Your task to perform on an android device: Search for dell xps on amazon, select the first entry, add it to the cart, then select checkout. Image 0: 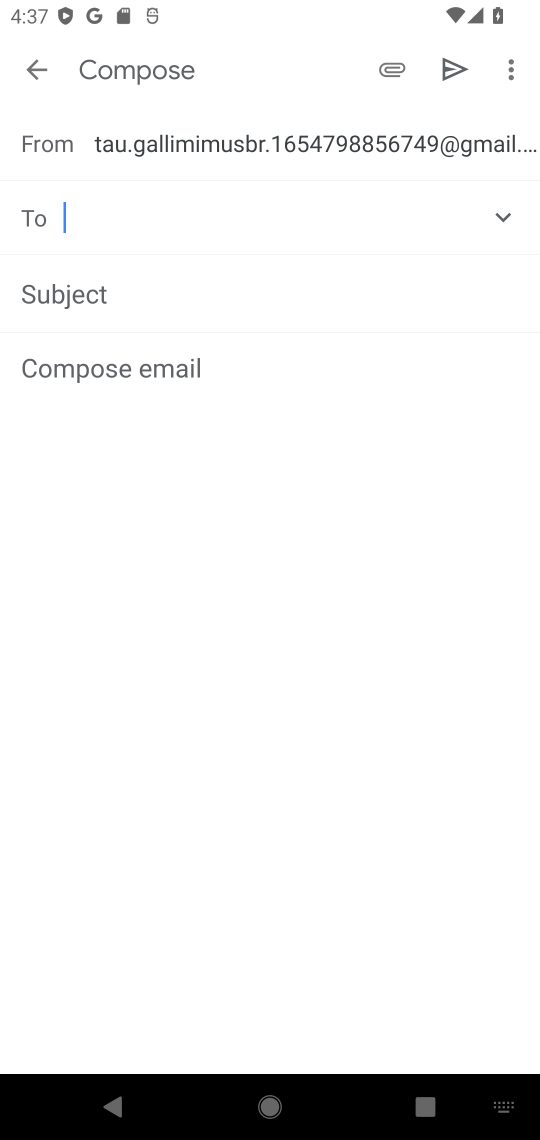
Step 0: press home button
Your task to perform on an android device: Search for dell xps on amazon, select the first entry, add it to the cart, then select checkout. Image 1: 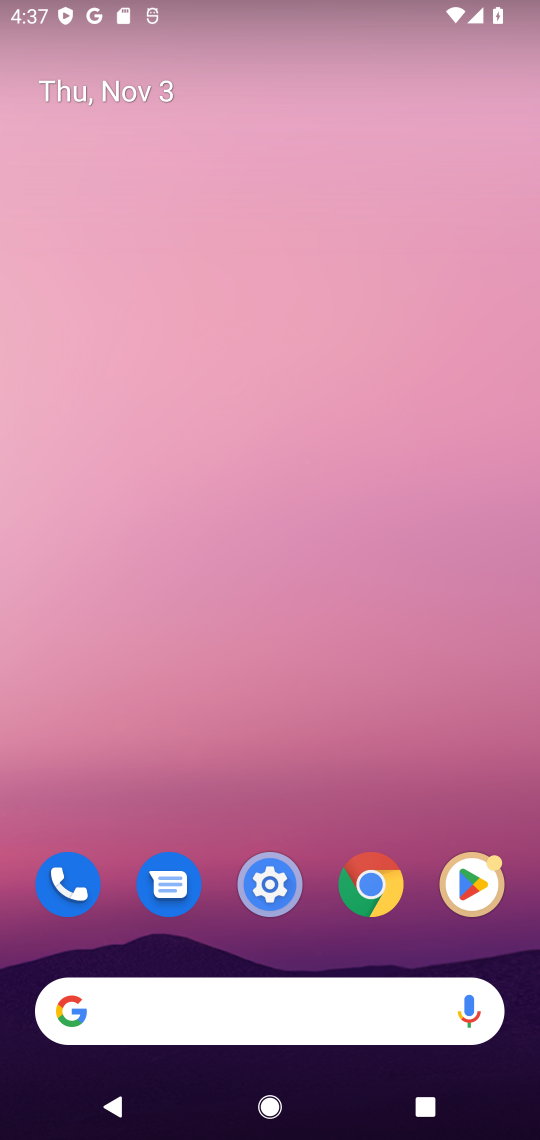
Step 1: click (101, 1008)
Your task to perform on an android device: Search for dell xps on amazon, select the first entry, add it to the cart, then select checkout. Image 2: 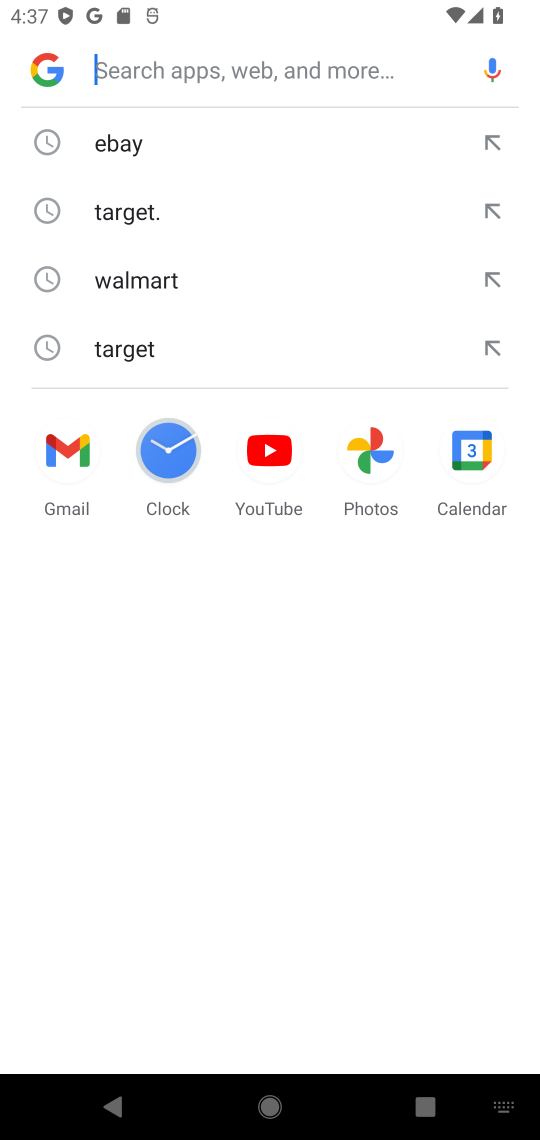
Step 2: type " amazon"
Your task to perform on an android device: Search for dell xps on amazon, select the first entry, add it to the cart, then select checkout. Image 3: 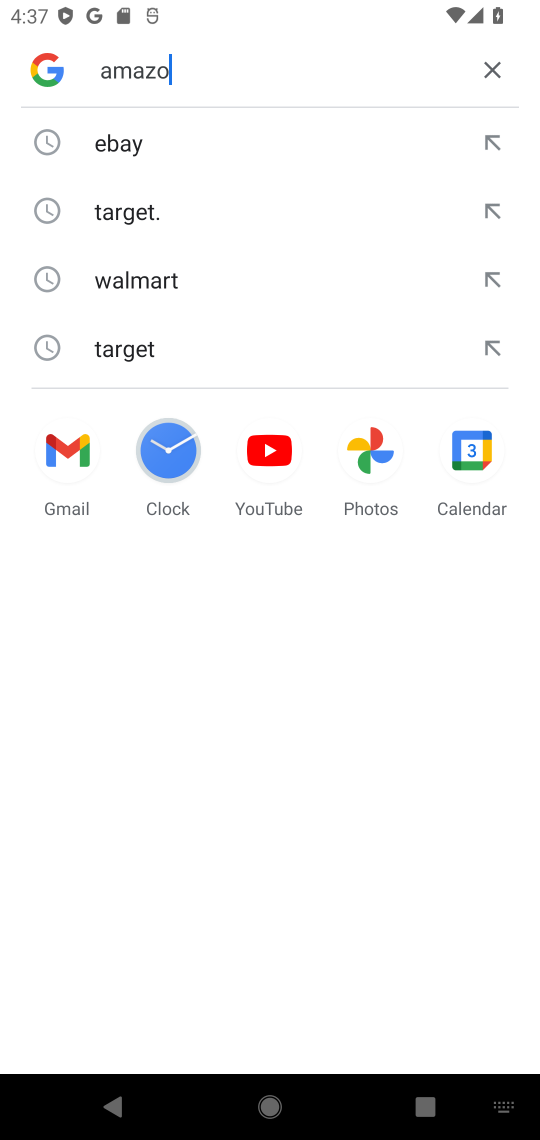
Step 3: press enter
Your task to perform on an android device: Search for dell xps on amazon, select the first entry, add it to the cart, then select checkout. Image 4: 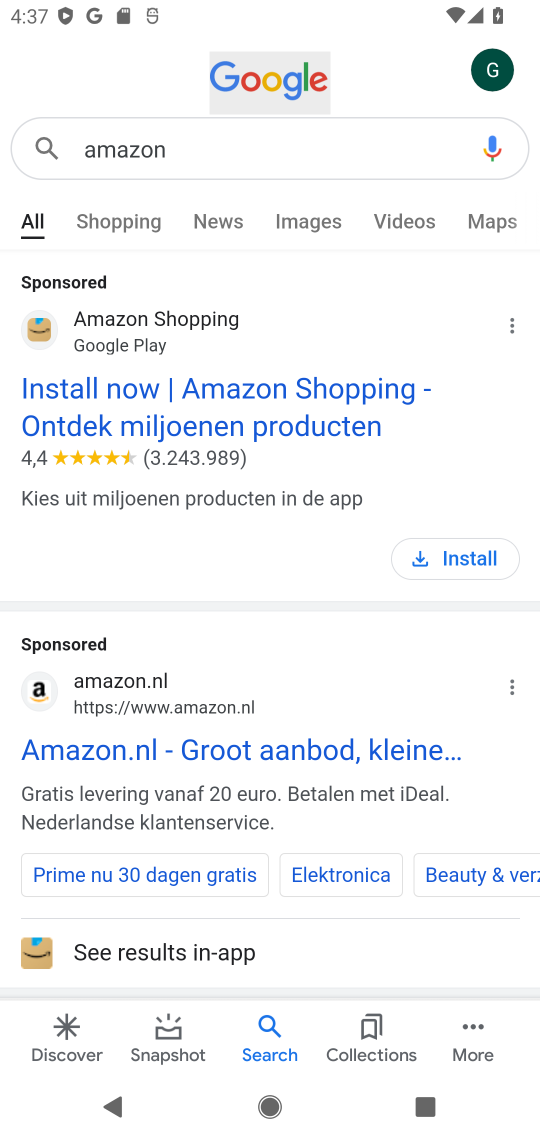
Step 4: drag from (322, 911) to (394, 364)
Your task to perform on an android device: Search for dell xps on amazon, select the first entry, add it to the cart, then select checkout. Image 5: 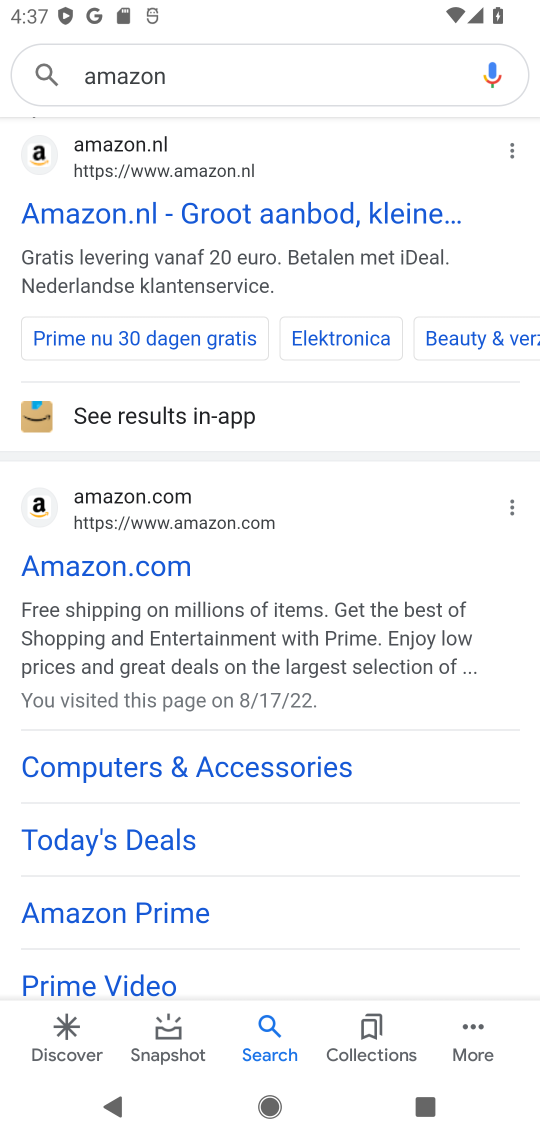
Step 5: click (105, 567)
Your task to perform on an android device: Search for dell xps on amazon, select the first entry, add it to the cart, then select checkout. Image 6: 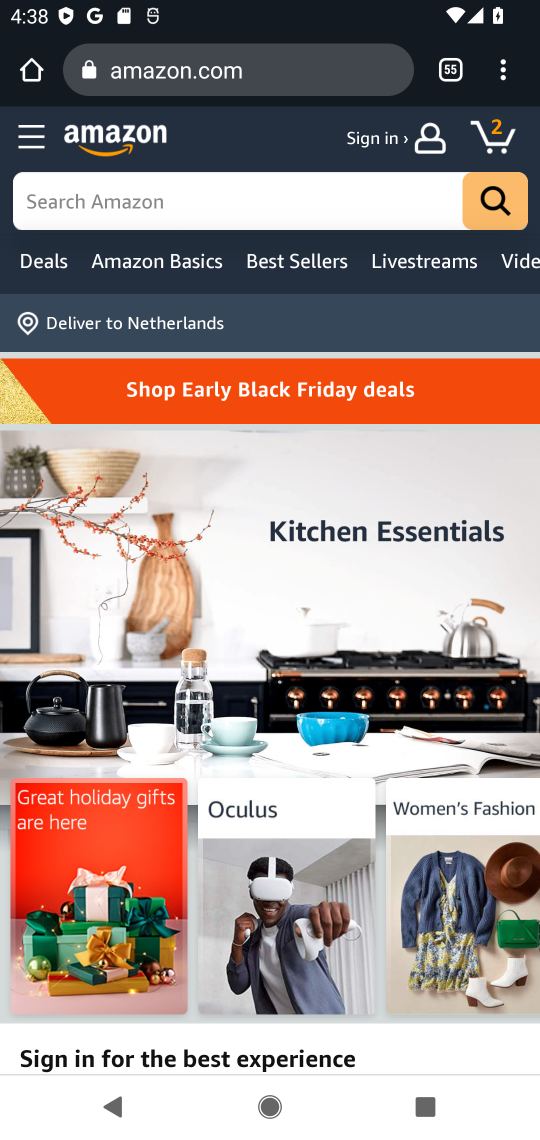
Step 6: click (194, 206)
Your task to perform on an android device: Search for dell xps on amazon, select the first entry, add it to the cart, then select checkout. Image 7: 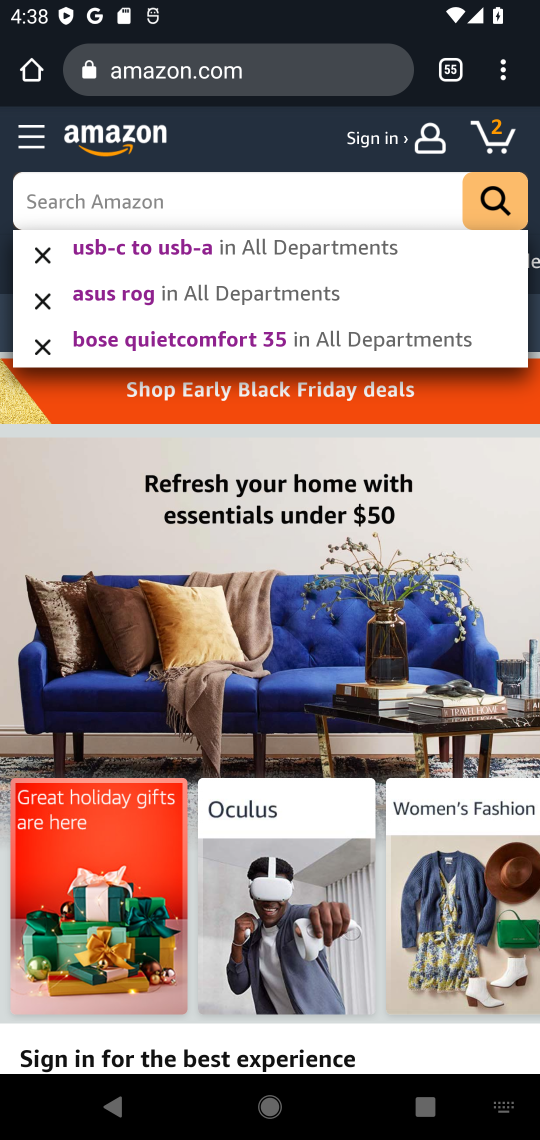
Step 7: press enter
Your task to perform on an android device: Search for dell xps on amazon, select the first entry, add it to the cart, then select checkout. Image 8: 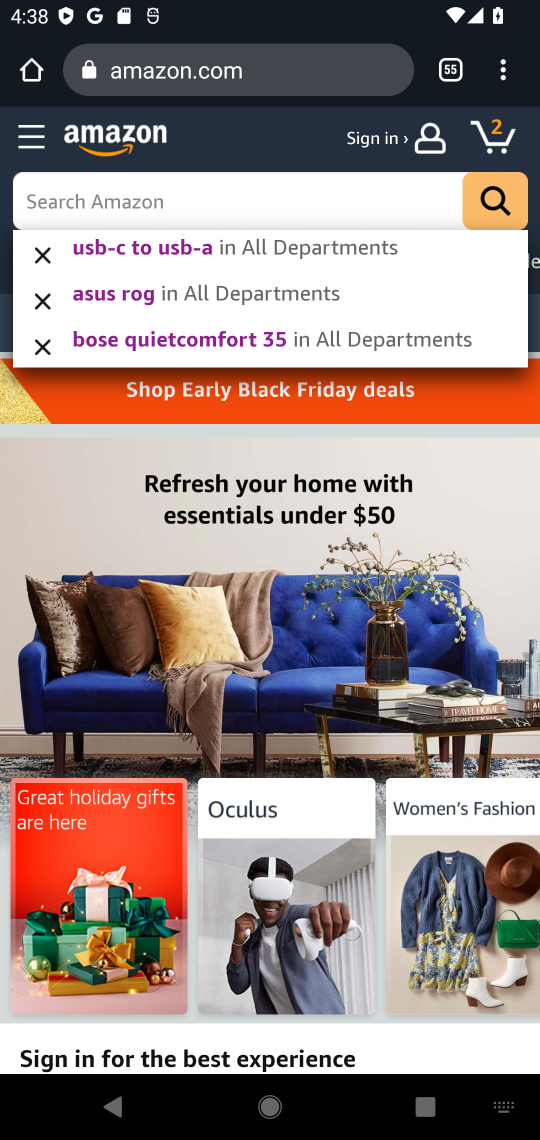
Step 8: type "dell xps"
Your task to perform on an android device: Search for dell xps on amazon, select the first entry, add it to the cart, then select checkout. Image 9: 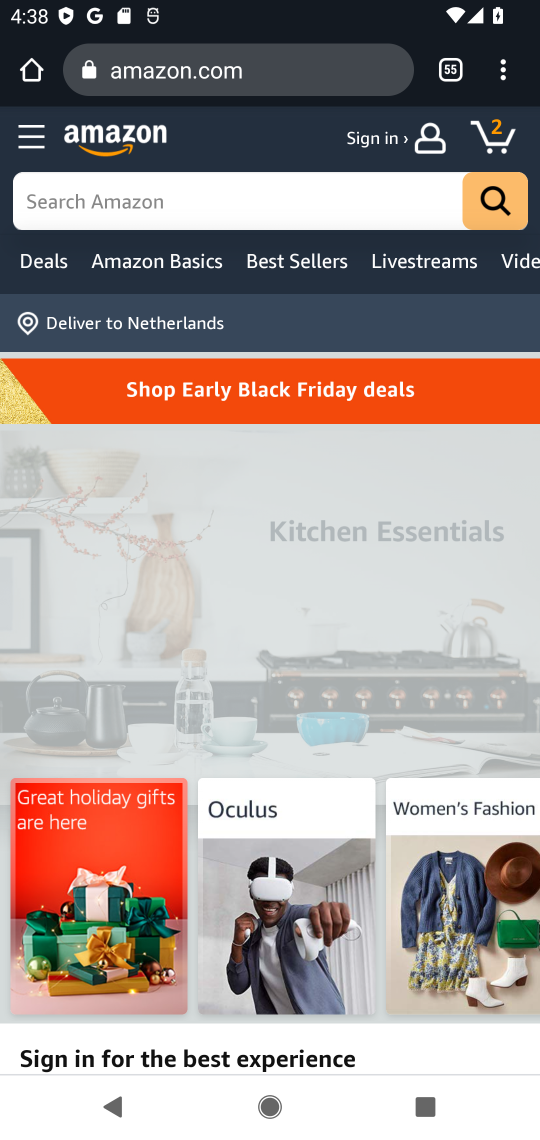
Step 9: click (110, 190)
Your task to perform on an android device: Search for dell xps on amazon, select the first entry, add it to the cart, then select checkout. Image 10: 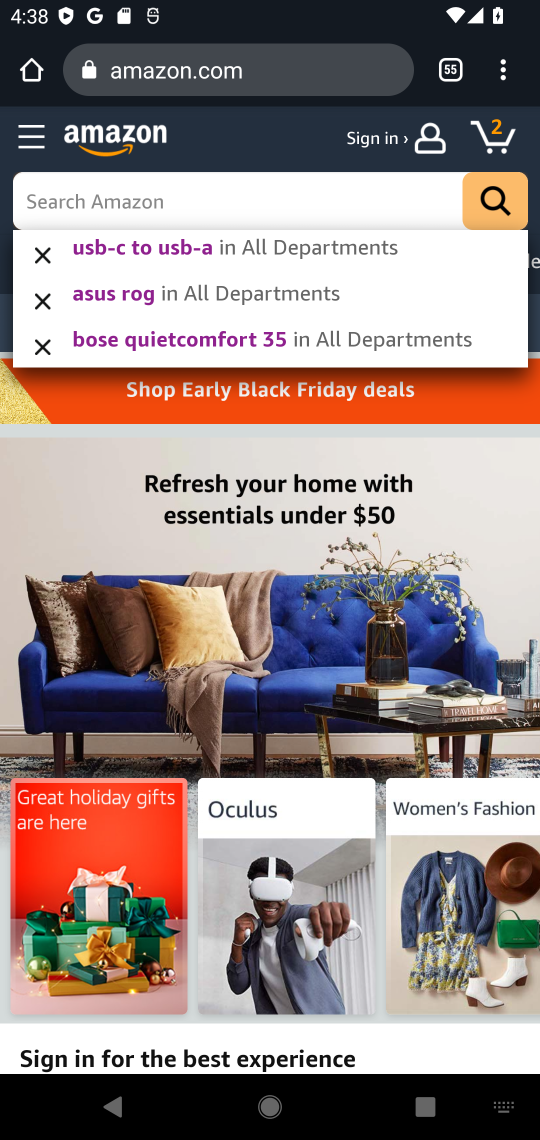
Step 10: type "dell xps"
Your task to perform on an android device: Search for dell xps on amazon, select the first entry, add it to the cart, then select checkout. Image 11: 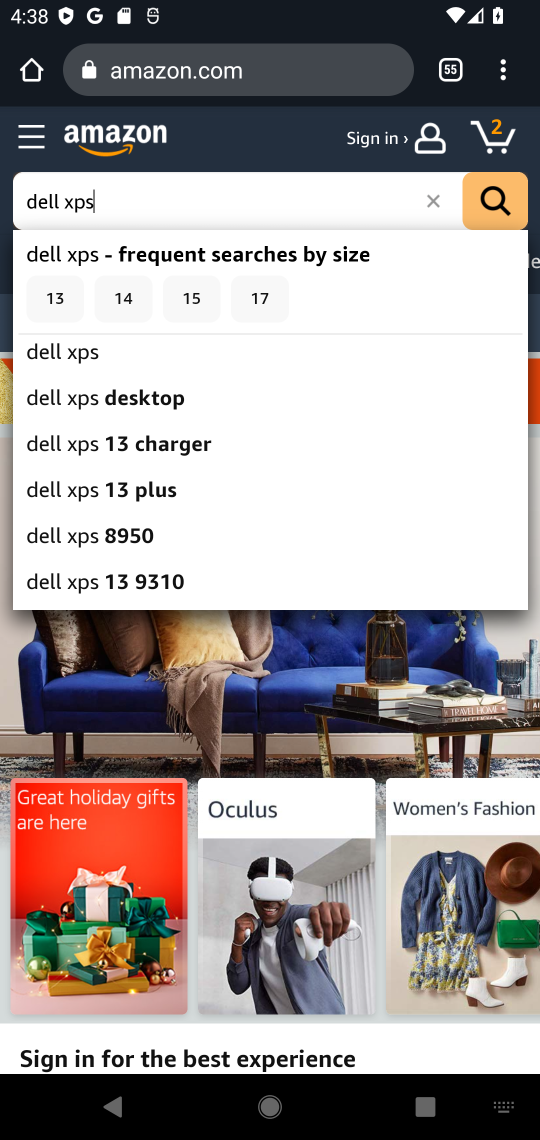
Step 11: click (493, 193)
Your task to perform on an android device: Search for dell xps on amazon, select the first entry, add it to the cart, then select checkout. Image 12: 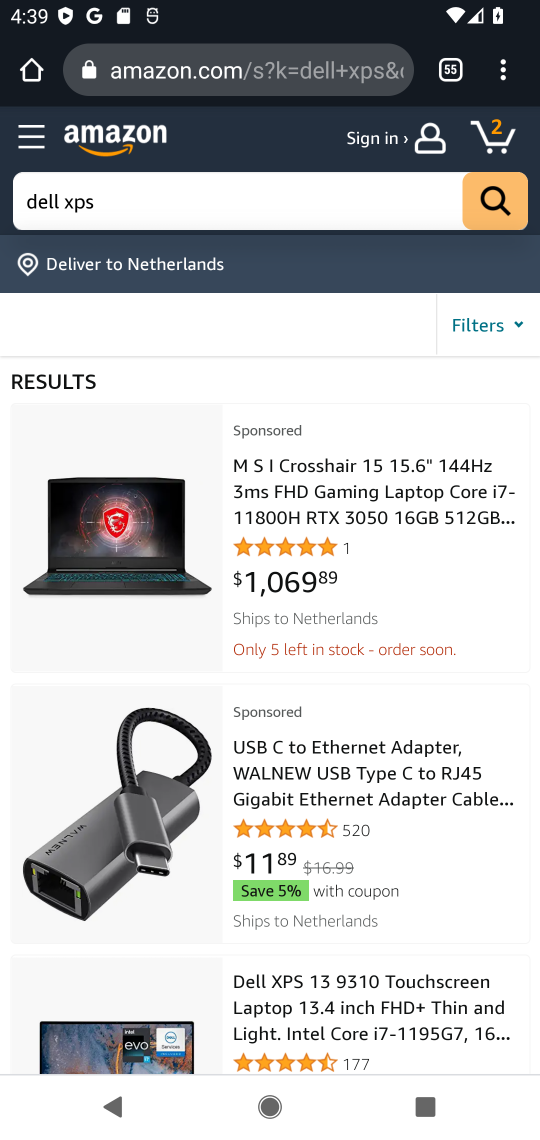
Step 12: drag from (363, 885) to (362, 419)
Your task to perform on an android device: Search for dell xps on amazon, select the first entry, add it to the cart, then select checkout. Image 13: 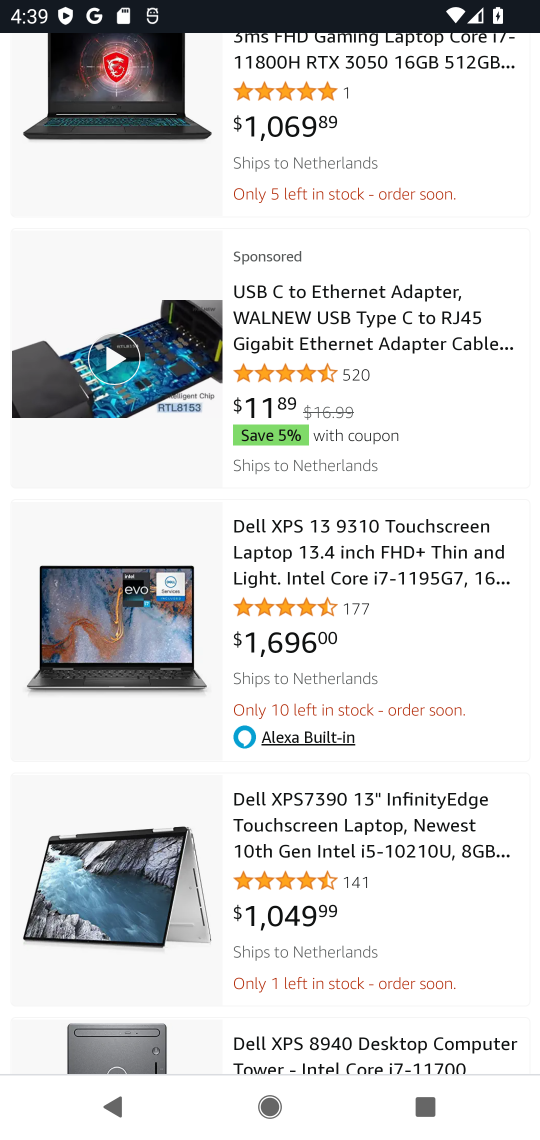
Step 13: click (330, 567)
Your task to perform on an android device: Search for dell xps on amazon, select the first entry, add it to the cart, then select checkout. Image 14: 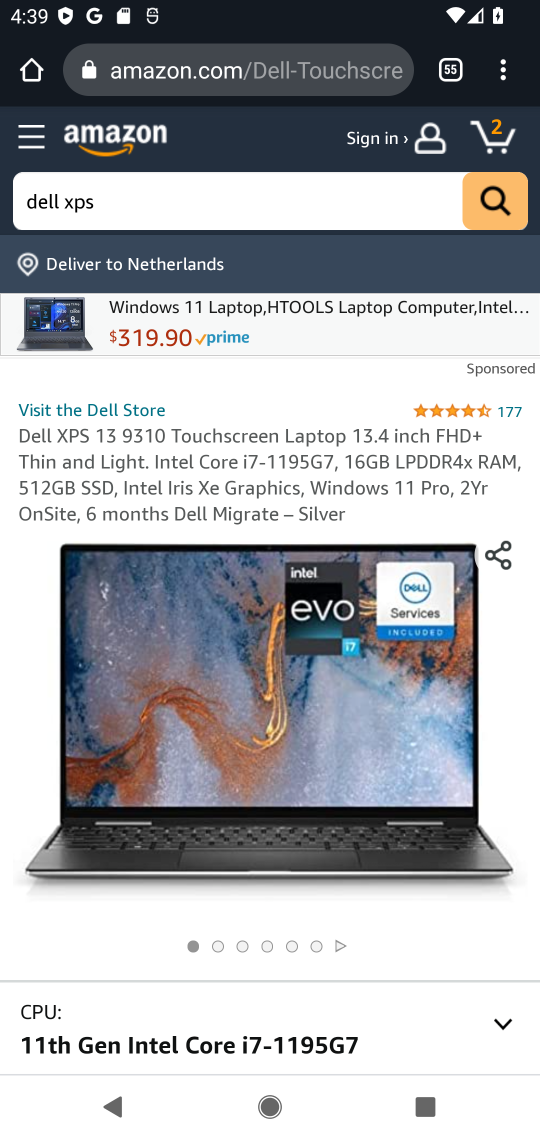
Step 14: drag from (315, 907) to (345, 453)
Your task to perform on an android device: Search for dell xps on amazon, select the first entry, add it to the cart, then select checkout. Image 15: 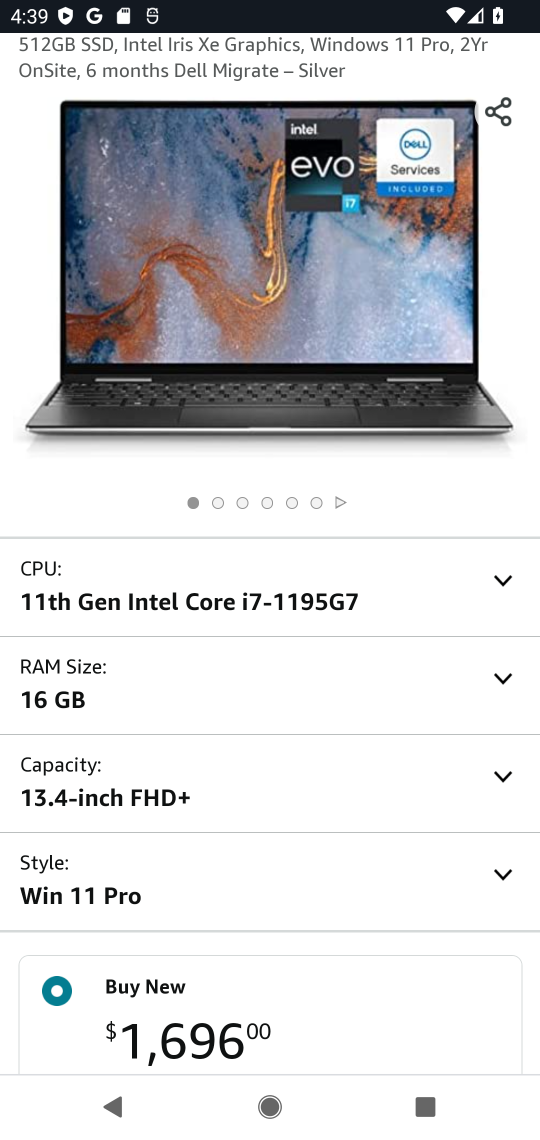
Step 15: drag from (282, 915) to (325, 453)
Your task to perform on an android device: Search for dell xps on amazon, select the first entry, add it to the cart, then select checkout. Image 16: 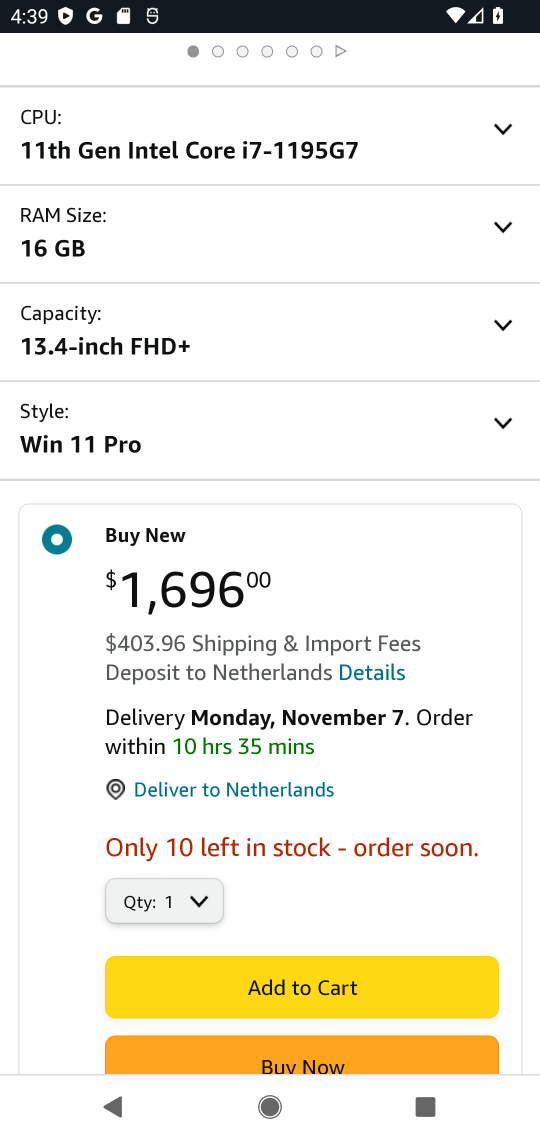
Step 16: drag from (312, 887) to (357, 408)
Your task to perform on an android device: Search for dell xps on amazon, select the first entry, add it to the cart, then select checkout. Image 17: 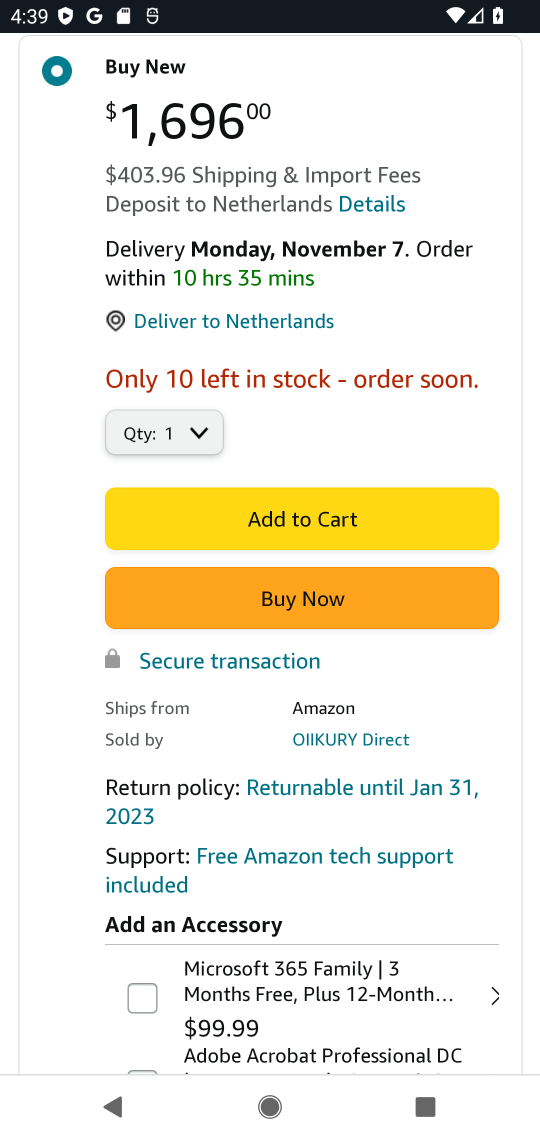
Step 17: click (280, 527)
Your task to perform on an android device: Search for dell xps on amazon, select the first entry, add it to the cart, then select checkout. Image 18: 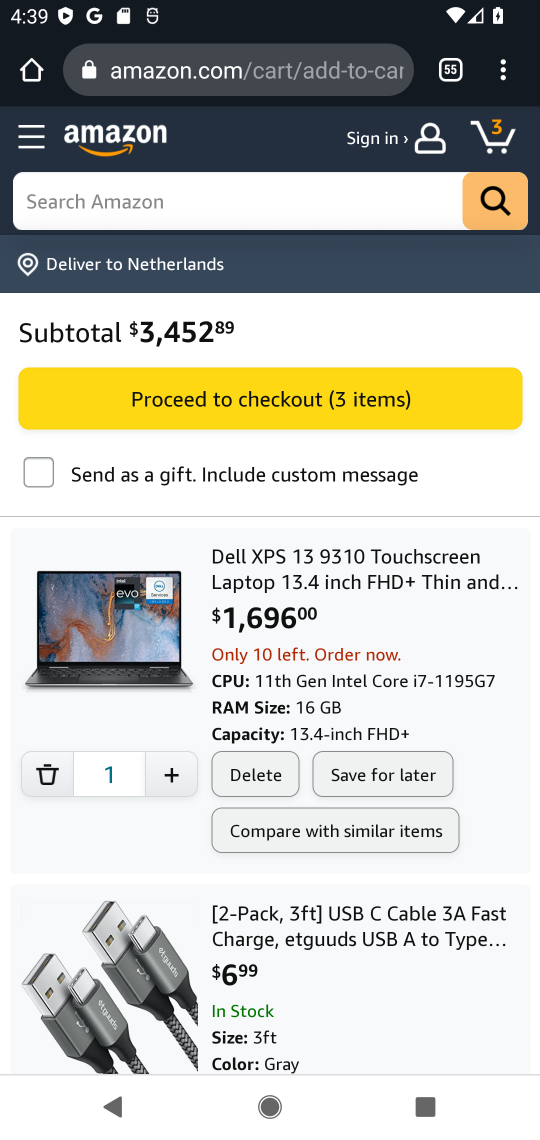
Step 18: click (228, 401)
Your task to perform on an android device: Search for dell xps on amazon, select the first entry, add it to the cart, then select checkout. Image 19: 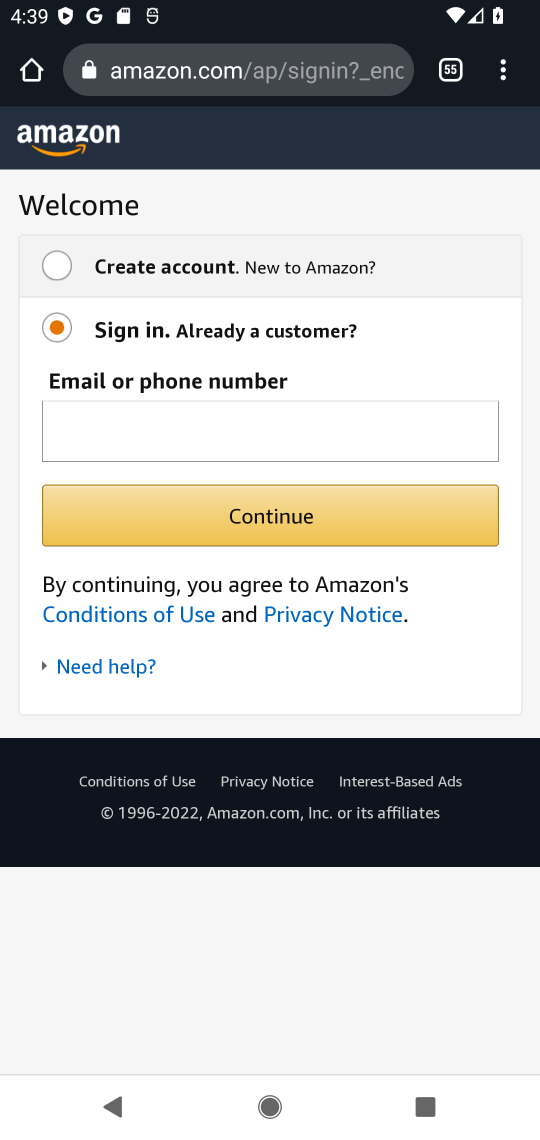
Step 19: task complete